Your task to perform on an android device: turn on data saver in the chrome app Image 0: 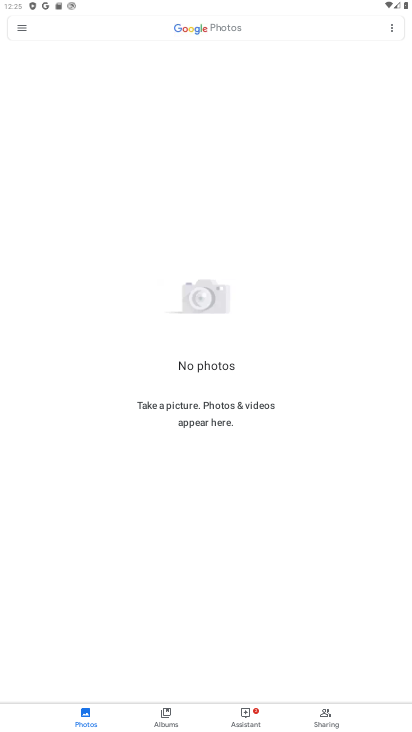
Step 0: press home button
Your task to perform on an android device: turn on data saver in the chrome app Image 1: 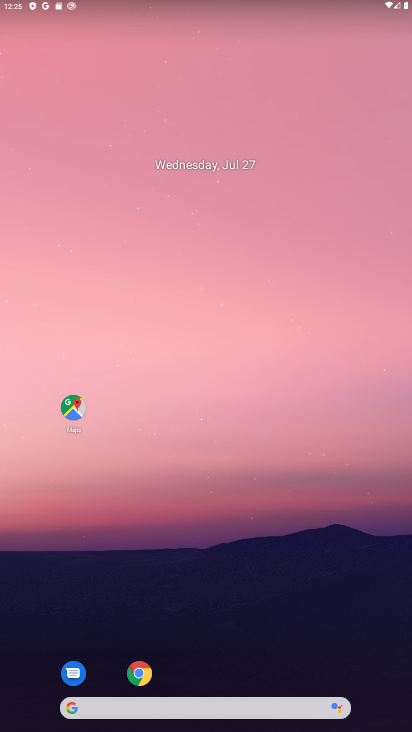
Step 1: click (140, 669)
Your task to perform on an android device: turn on data saver in the chrome app Image 2: 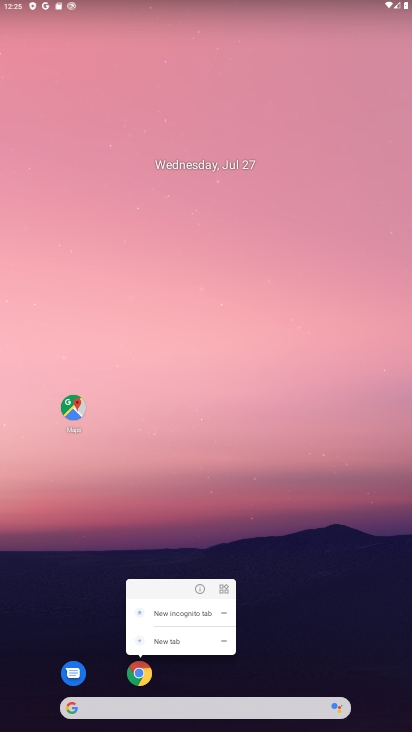
Step 2: click (140, 669)
Your task to perform on an android device: turn on data saver in the chrome app Image 3: 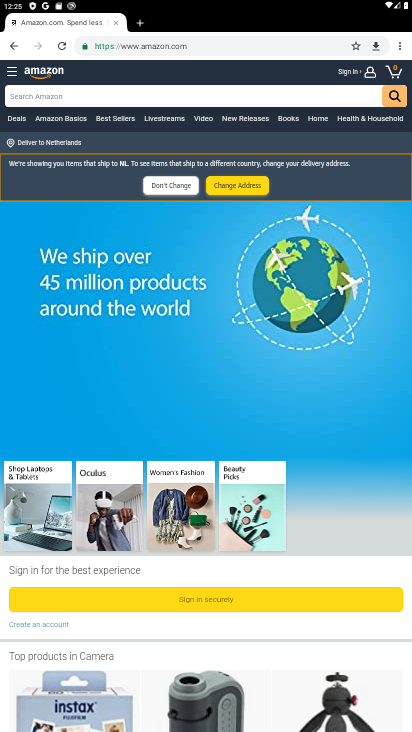
Step 3: drag from (399, 42) to (306, 309)
Your task to perform on an android device: turn on data saver in the chrome app Image 4: 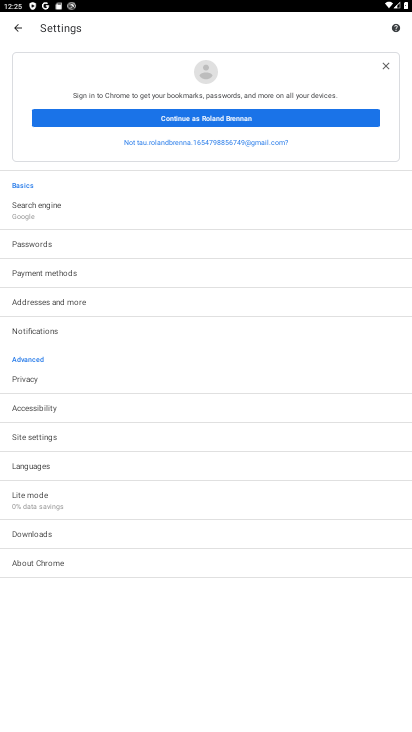
Step 4: click (43, 498)
Your task to perform on an android device: turn on data saver in the chrome app Image 5: 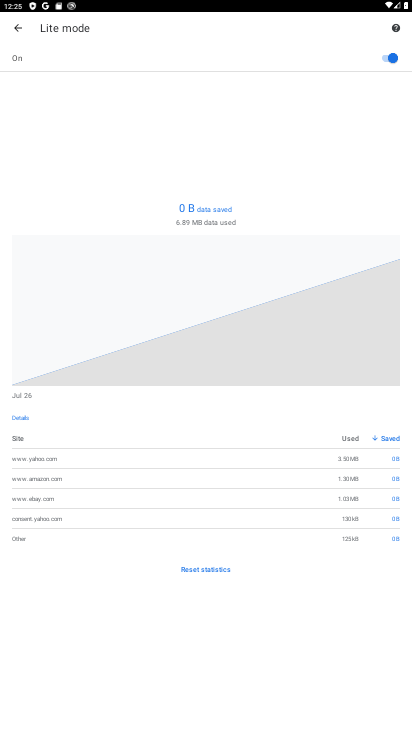
Step 5: task complete